Your task to perform on an android device: Go to ESPN.com Image 0: 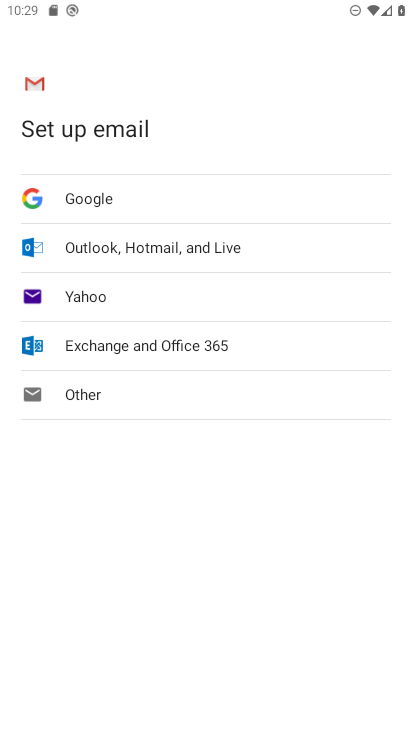
Step 0: press home button
Your task to perform on an android device: Go to ESPN.com Image 1: 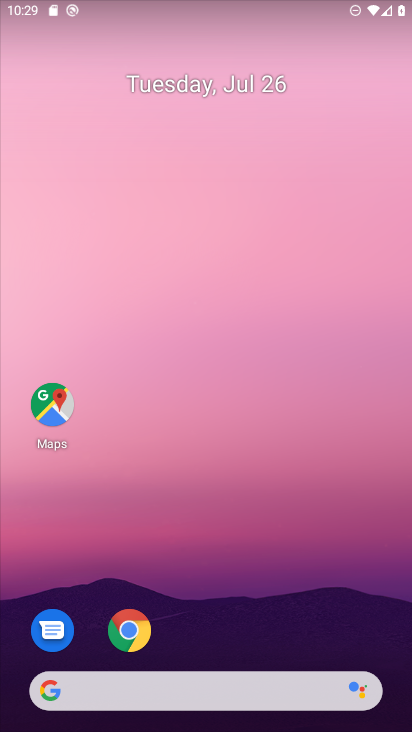
Step 1: click (125, 627)
Your task to perform on an android device: Go to ESPN.com Image 2: 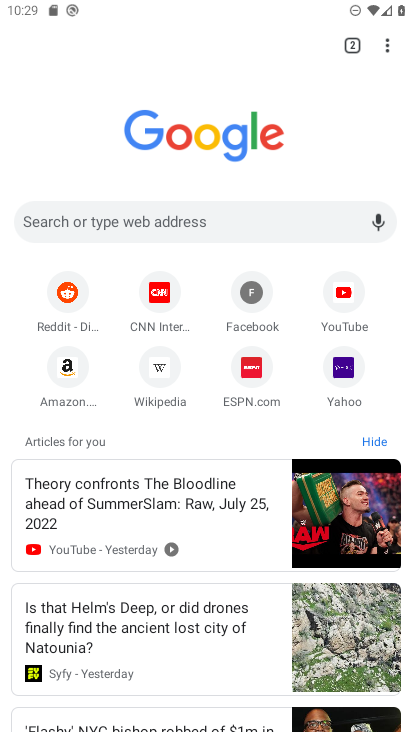
Step 2: click (120, 216)
Your task to perform on an android device: Go to ESPN.com Image 3: 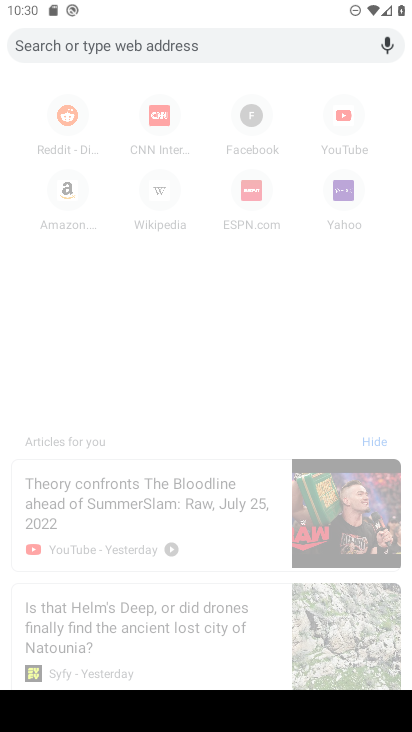
Step 3: type "espn.com"
Your task to perform on an android device: Go to ESPN.com Image 4: 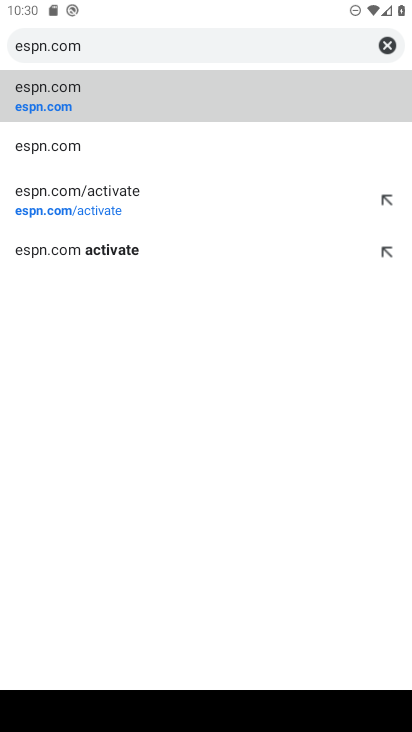
Step 4: click (71, 88)
Your task to perform on an android device: Go to ESPN.com Image 5: 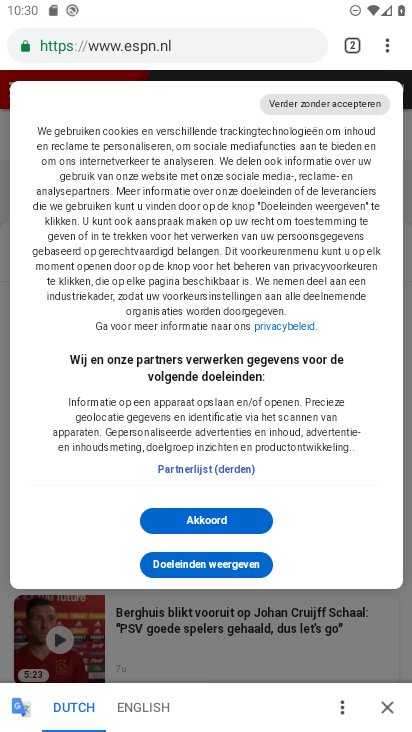
Step 5: click (386, 705)
Your task to perform on an android device: Go to ESPN.com Image 6: 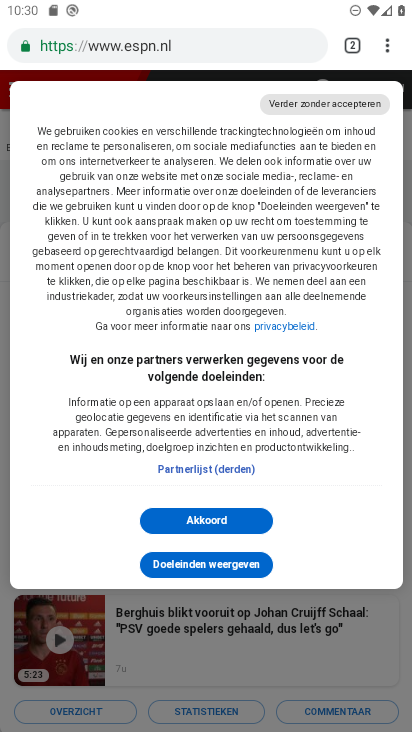
Step 6: click (201, 517)
Your task to perform on an android device: Go to ESPN.com Image 7: 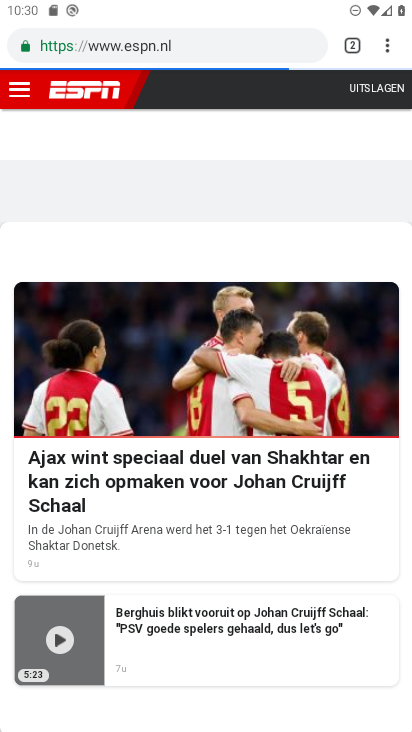
Step 7: task complete